Your task to perform on an android device: What is the capital of Italy? Image 0: 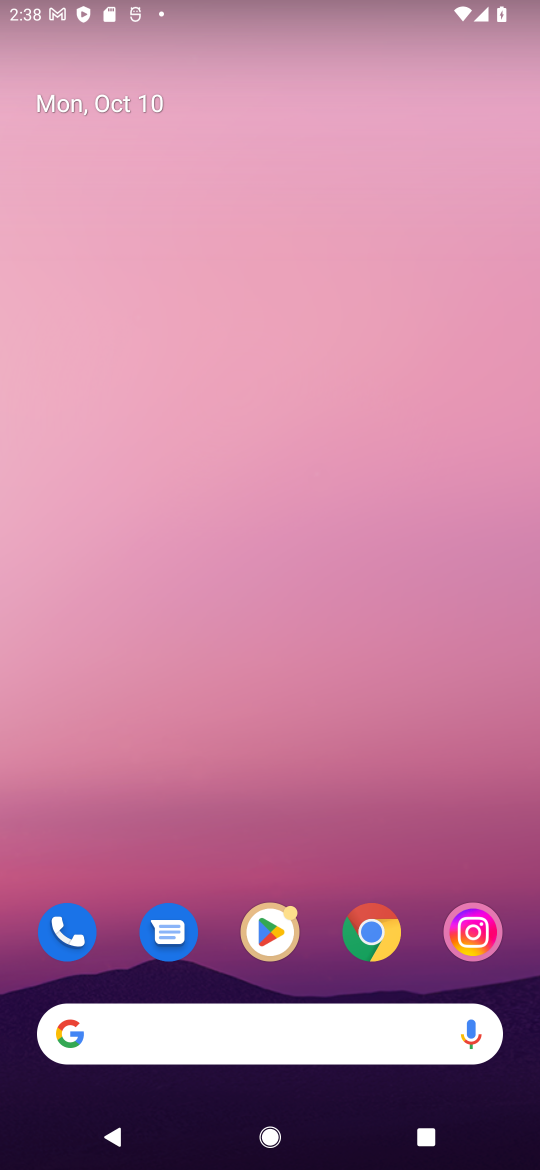
Step 0: press home button
Your task to perform on an android device: What is the capital of Italy? Image 1: 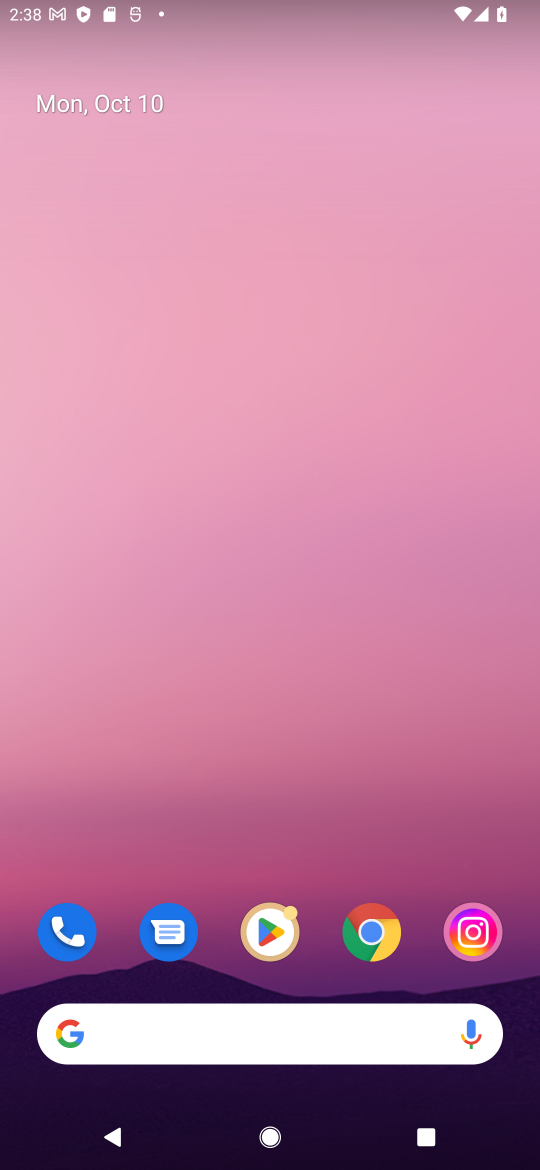
Step 1: click (298, 1029)
Your task to perform on an android device: What is the capital of Italy? Image 2: 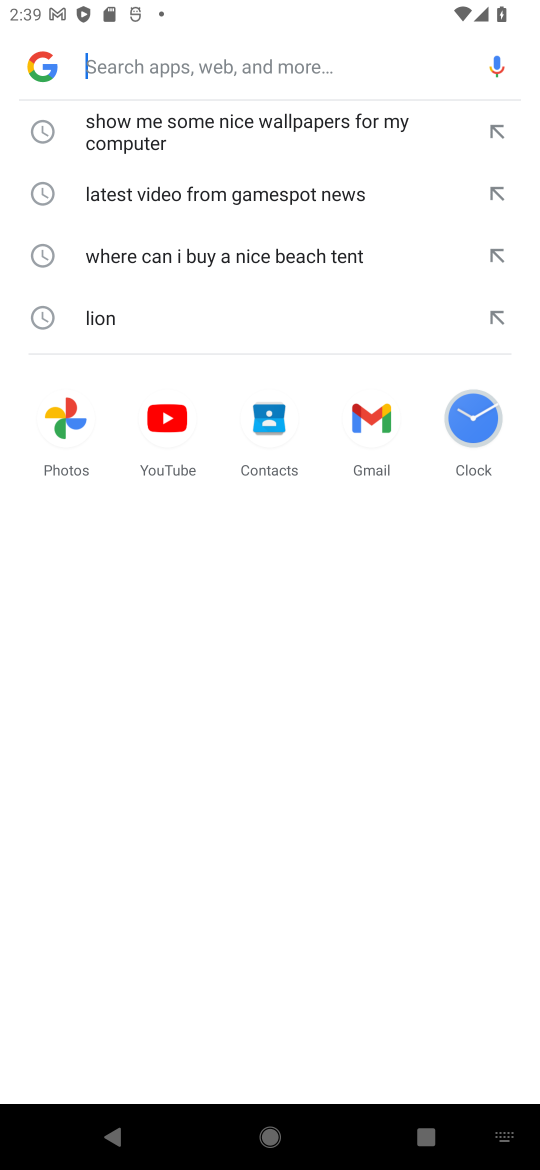
Step 2: type "What is the capital of Italy"
Your task to perform on an android device: What is the capital of Italy? Image 3: 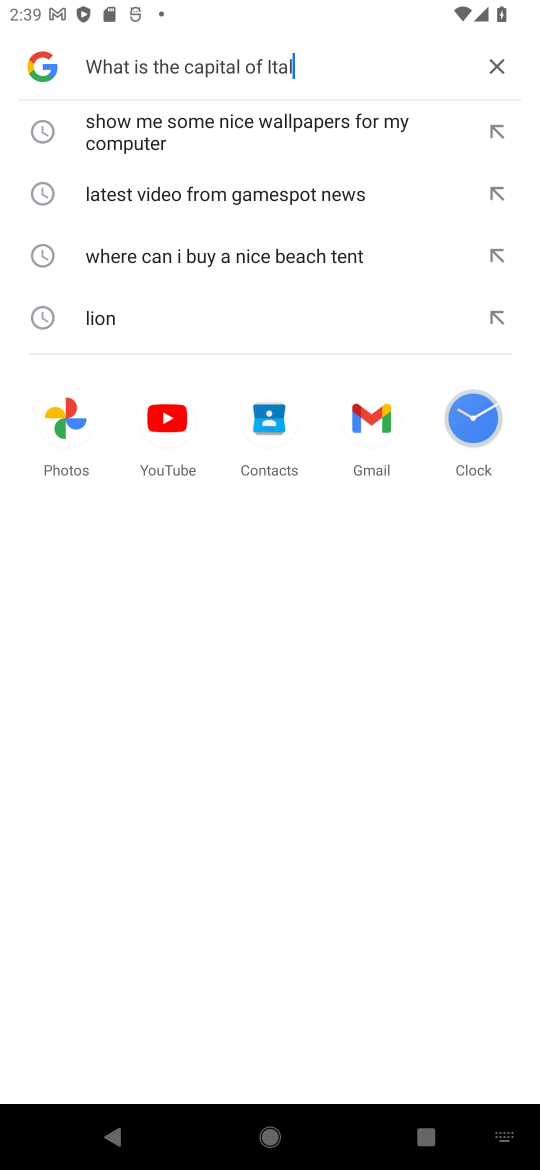
Step 3: press enter
Your task to perform on an android device: What is the capital of Italy? Image 4: 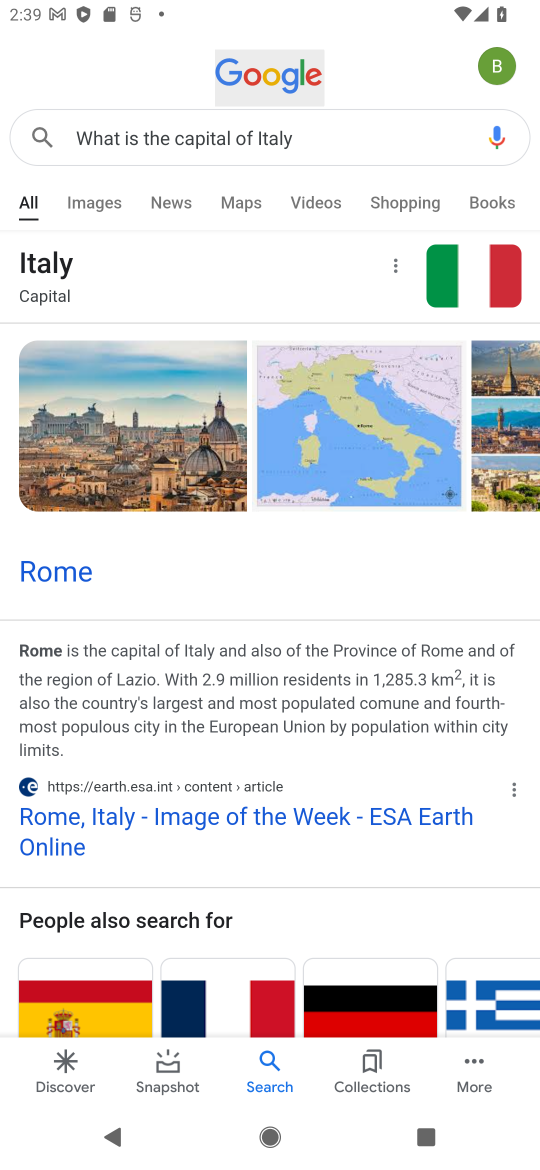
Step 4: task complete